Your task to perform on an android device: Open the calendar and show me this week's events? Image 0: 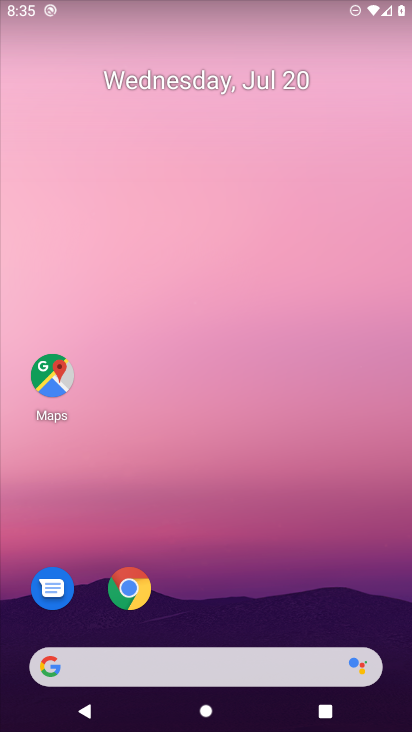
Step 0: drag from (14, 682) to (165, 179)
Your task to perform on an android device: Open the calendar and show me this week's events? Image 1: 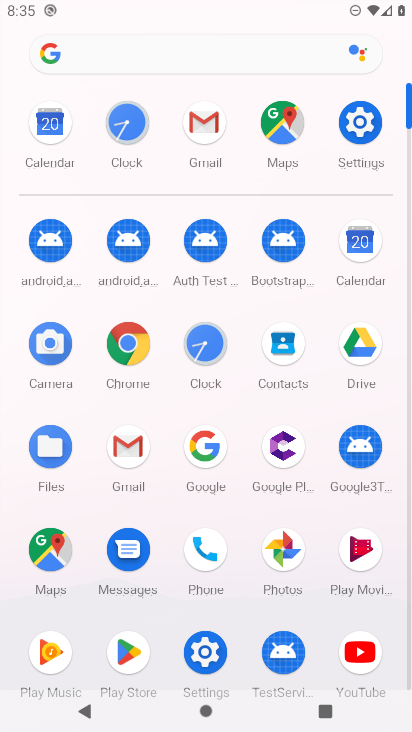
Step 1: click (367, 255)
Your task to perform on an android device: Open the calendar and show me this week's events? Image 2: 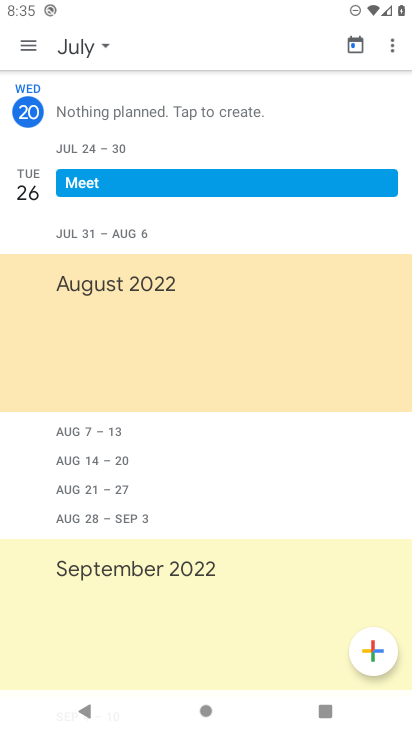
Step 2: click (109, 45)
Your task to perform on an android device: Open the calendar and show me this week's events? Image 3: 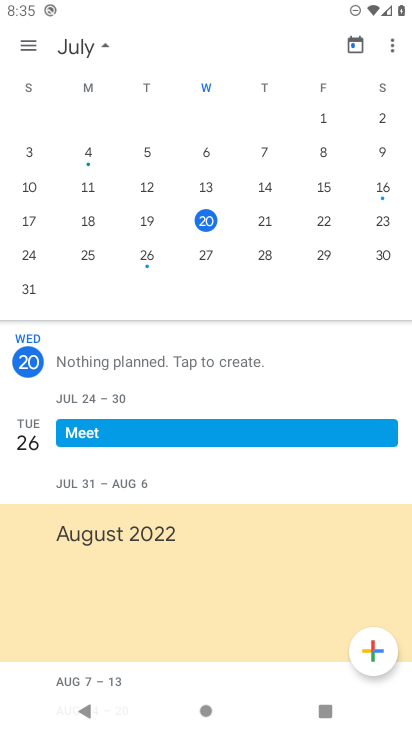
Step 3: task complete